Your task to perform on an android device: Check the news Image 0: 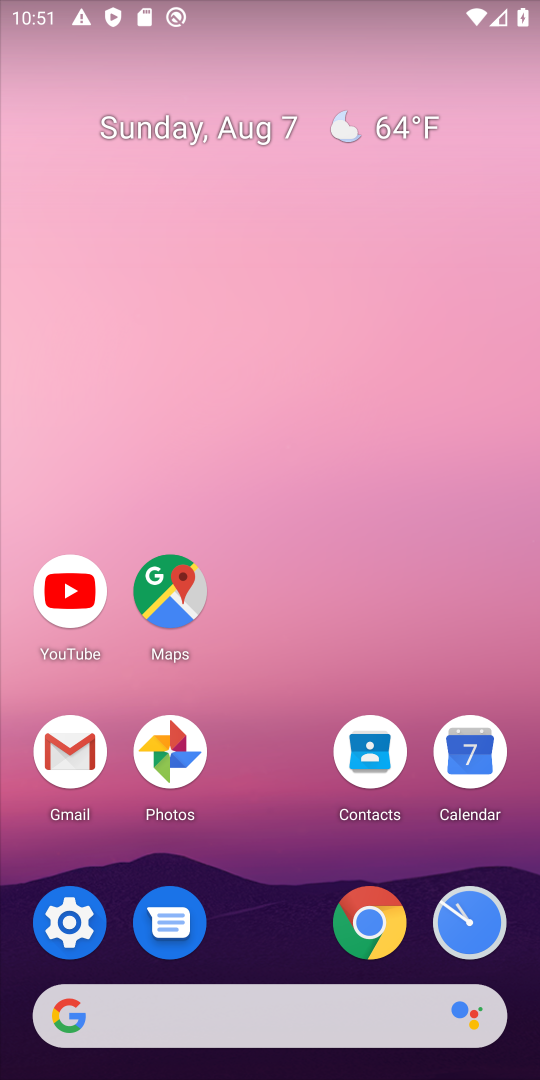
Step 0: press home button
Your task to perform on an android device: Check the news Image 1: 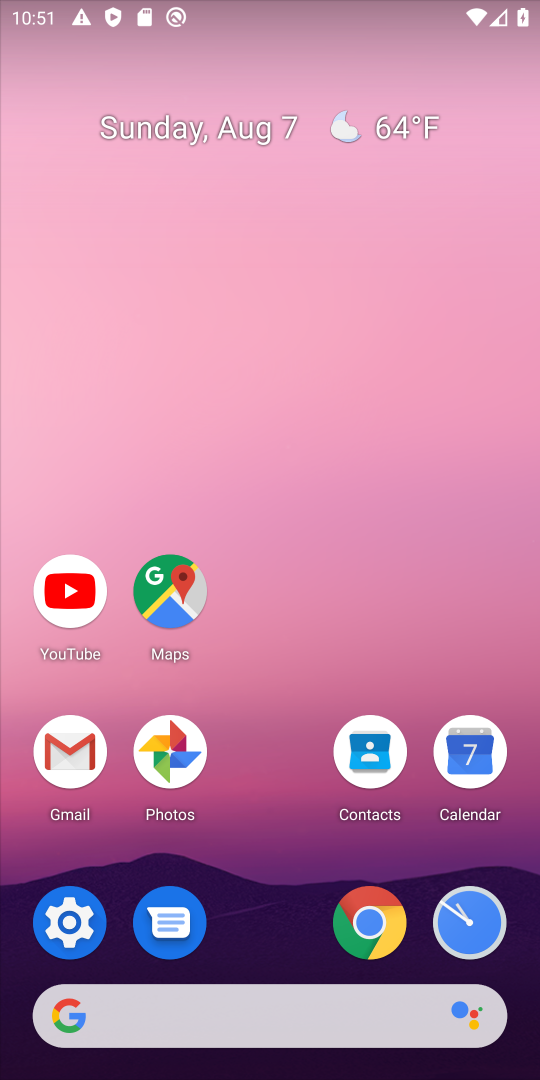
Step 1: click (234, 1021)
Your task to perform on an android device: Check the news Image 2: 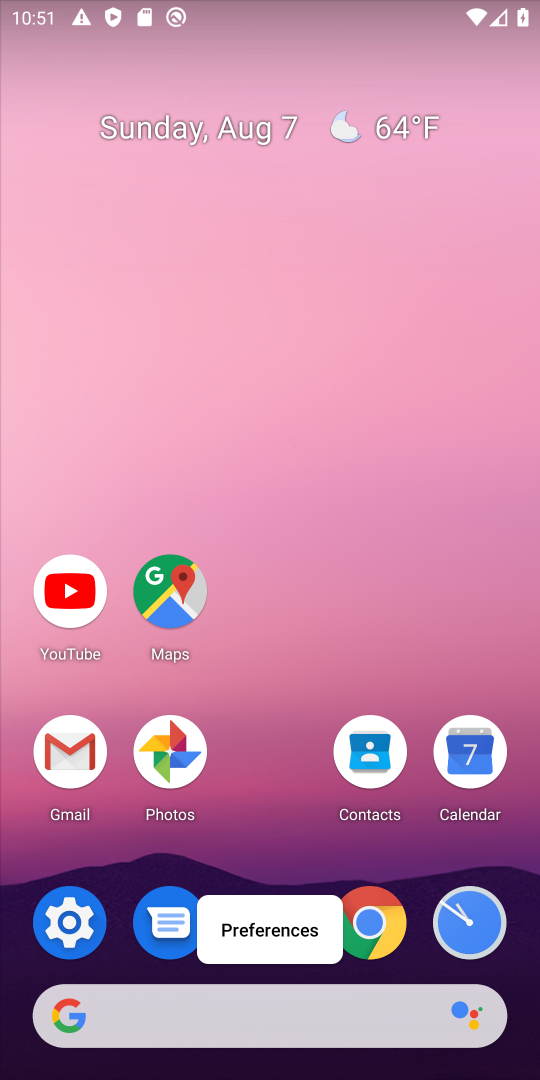
Step 2: click (136, 1001)
Your task to perform on an android device: Check the news Image 3: 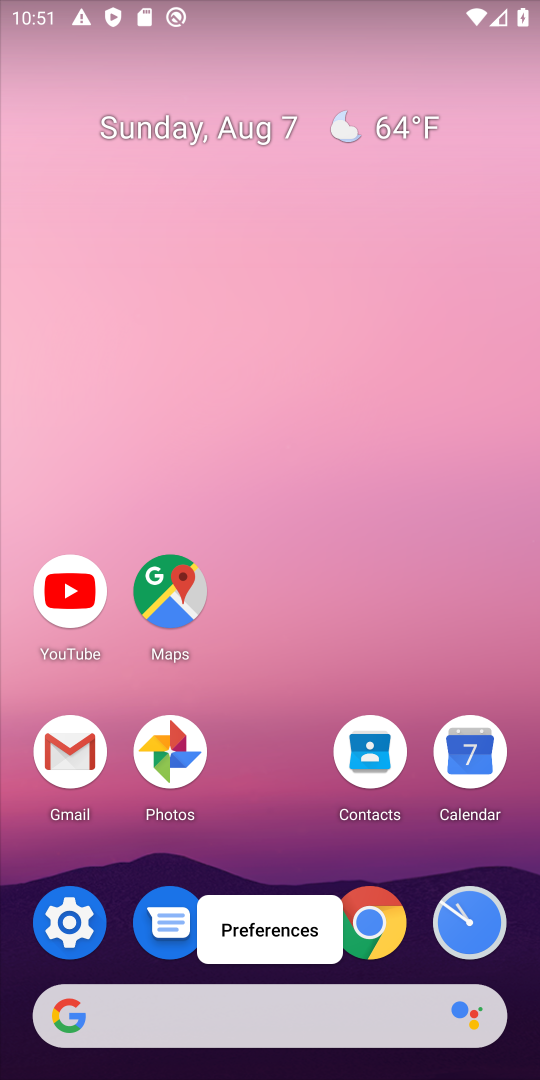
Step 3: click (374, 923)
Your task to perform on an android device: Check the news Image 4: 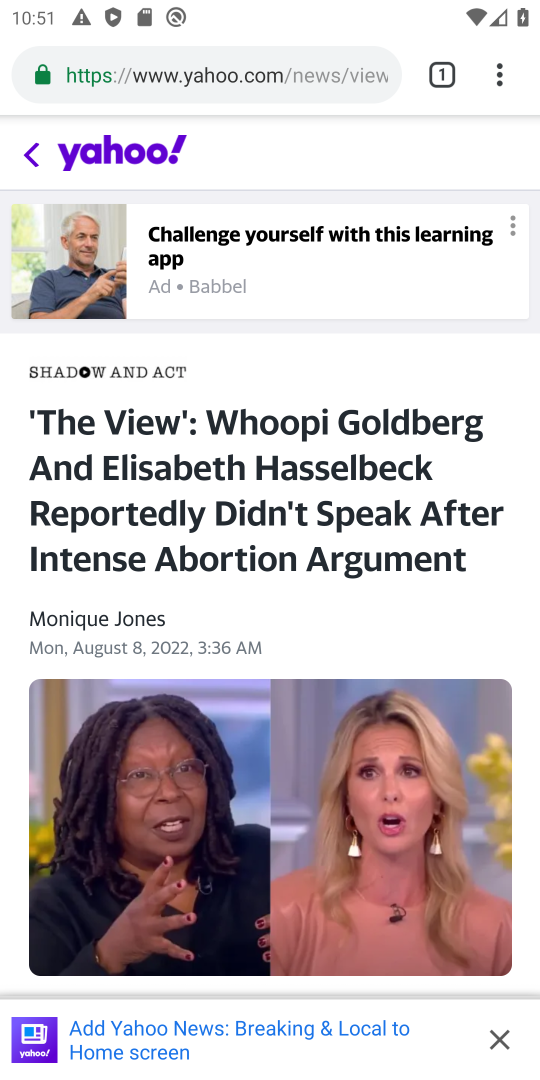
Step 4: click (498, 76)
Your task to perform on an android device: Check the news Image 5: 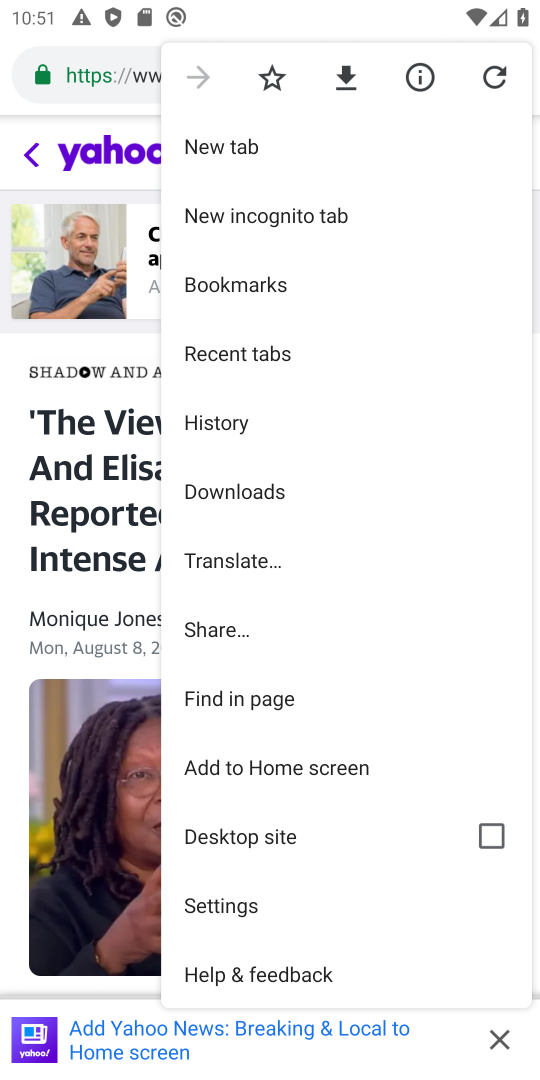
Step 5: click (218, 147)
Your task to perform on an android device: Check the news Image 6: 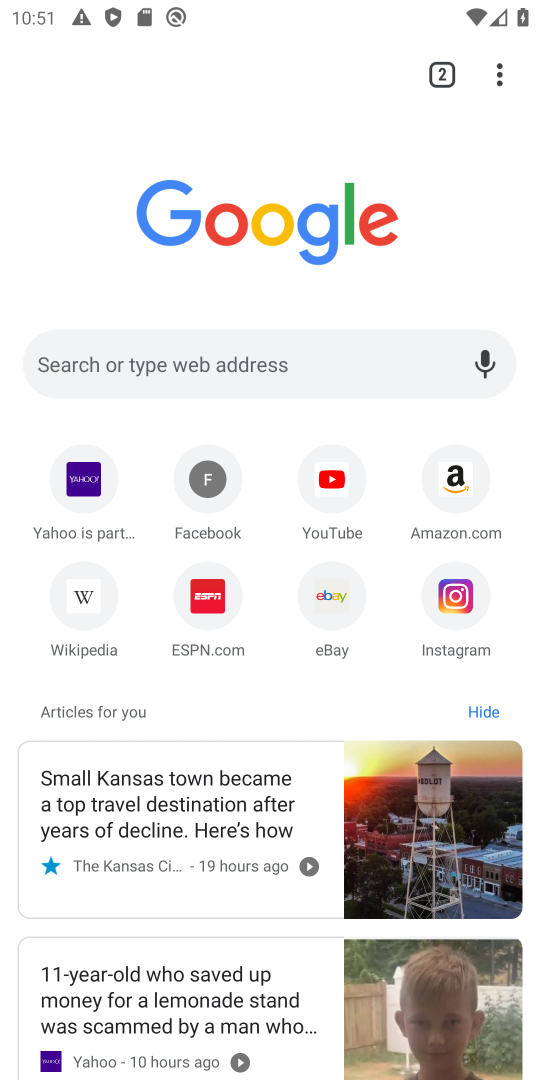
Step 6: click (261, 358)
Your task to perform on an android device: Check the news Image 7: 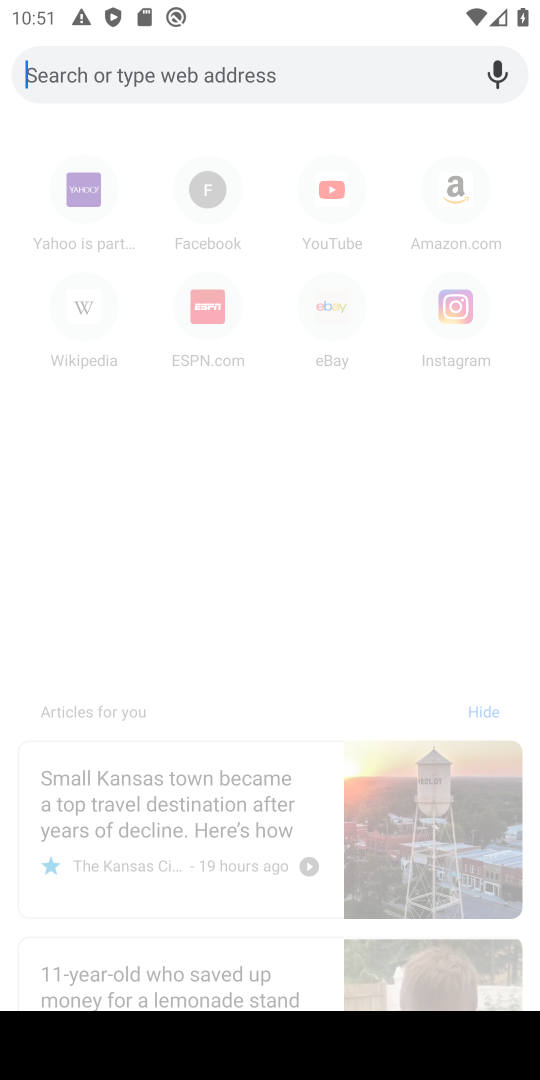
Step 7: type "news"
Your task to perform on an android device: Check the news Image 8: 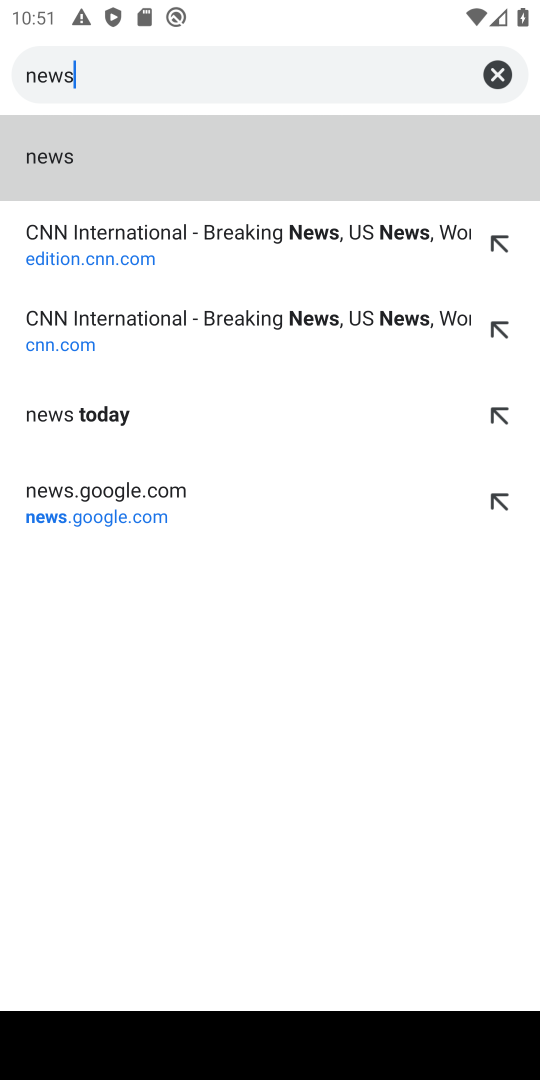
Step 8: click (82, 408)
Your task to perform on an android device: Check the news Image 9: 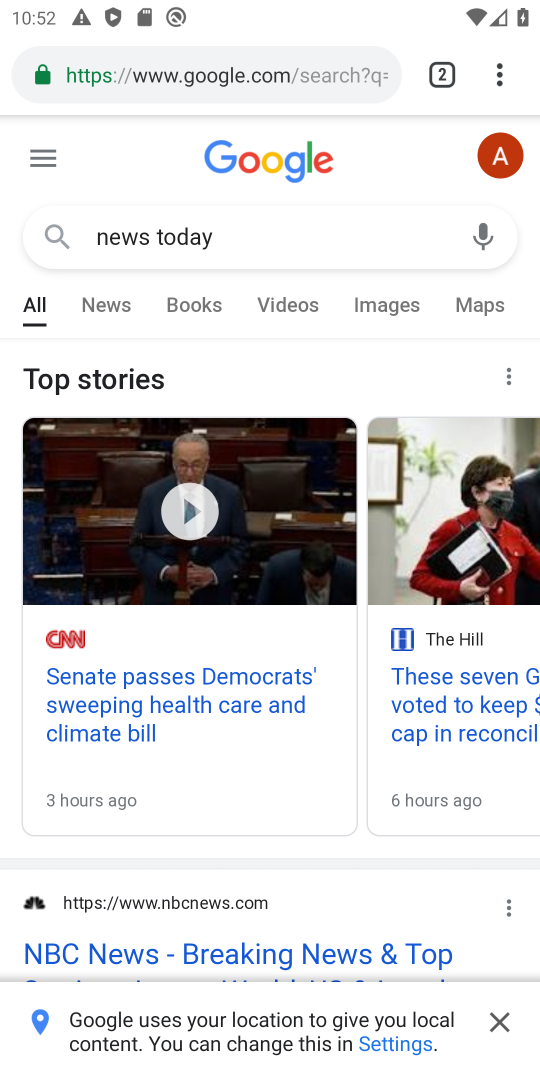
Step 9: click (285, 466)
Your task to perform on an android device: Check the news Image 10: 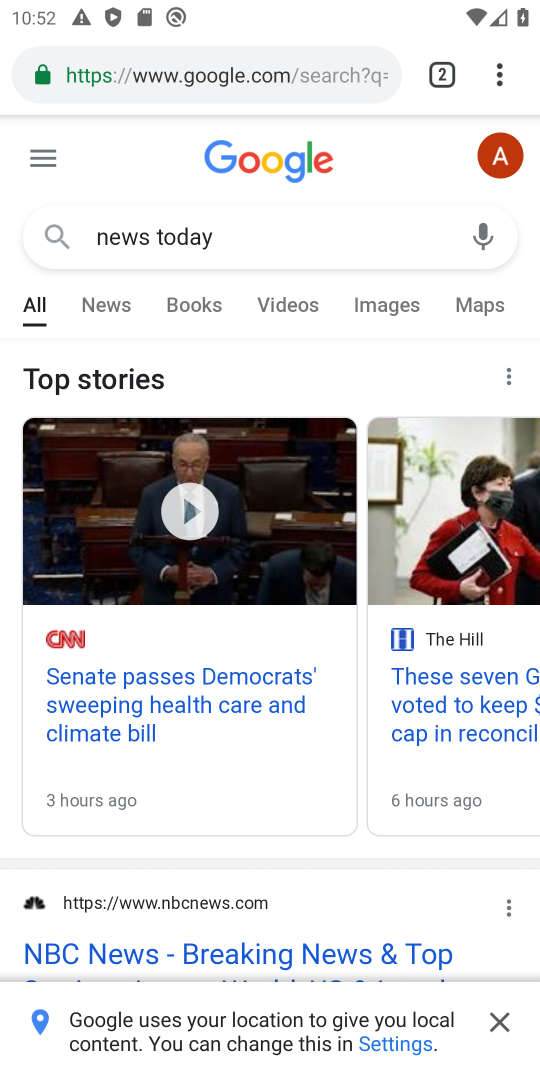
Step 10: click (225, 942)
Your task to perform on an android device: Check the news Image 11: 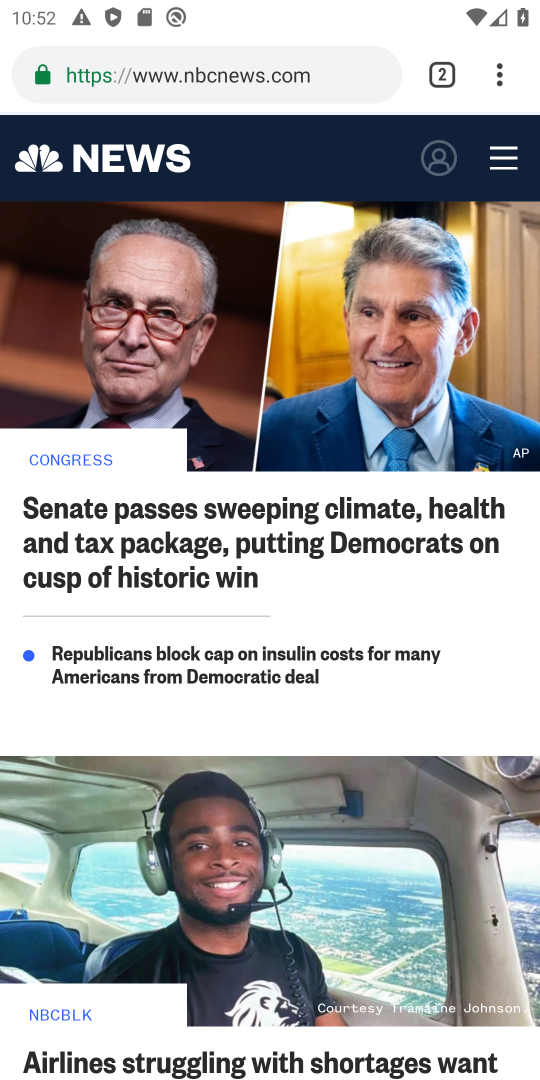
Step 11: task complete